Your task to perform on an android device: clear all cookies in the chrome app Image 0: 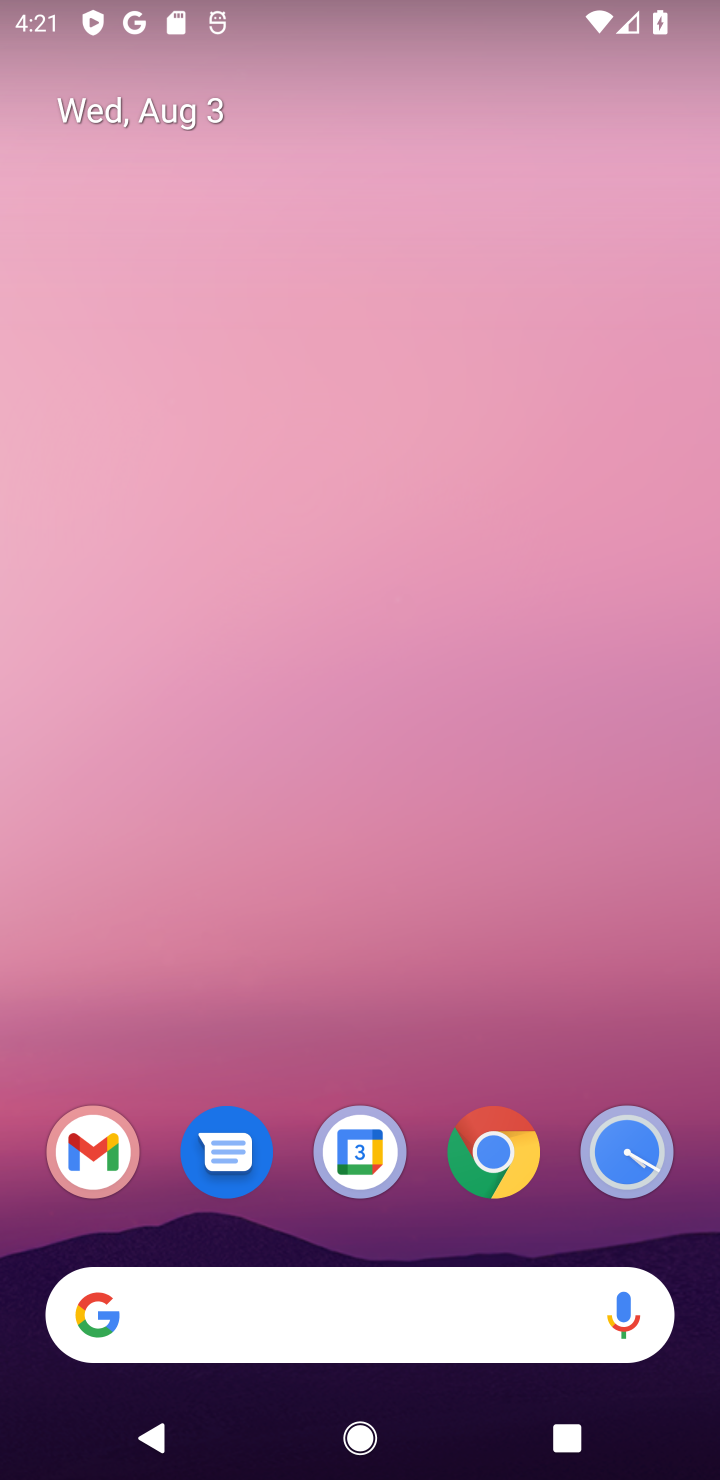
Step 0: click (468, 1161)
Your task to perform on an android device: clear all cookies in the chrome app Image 1: 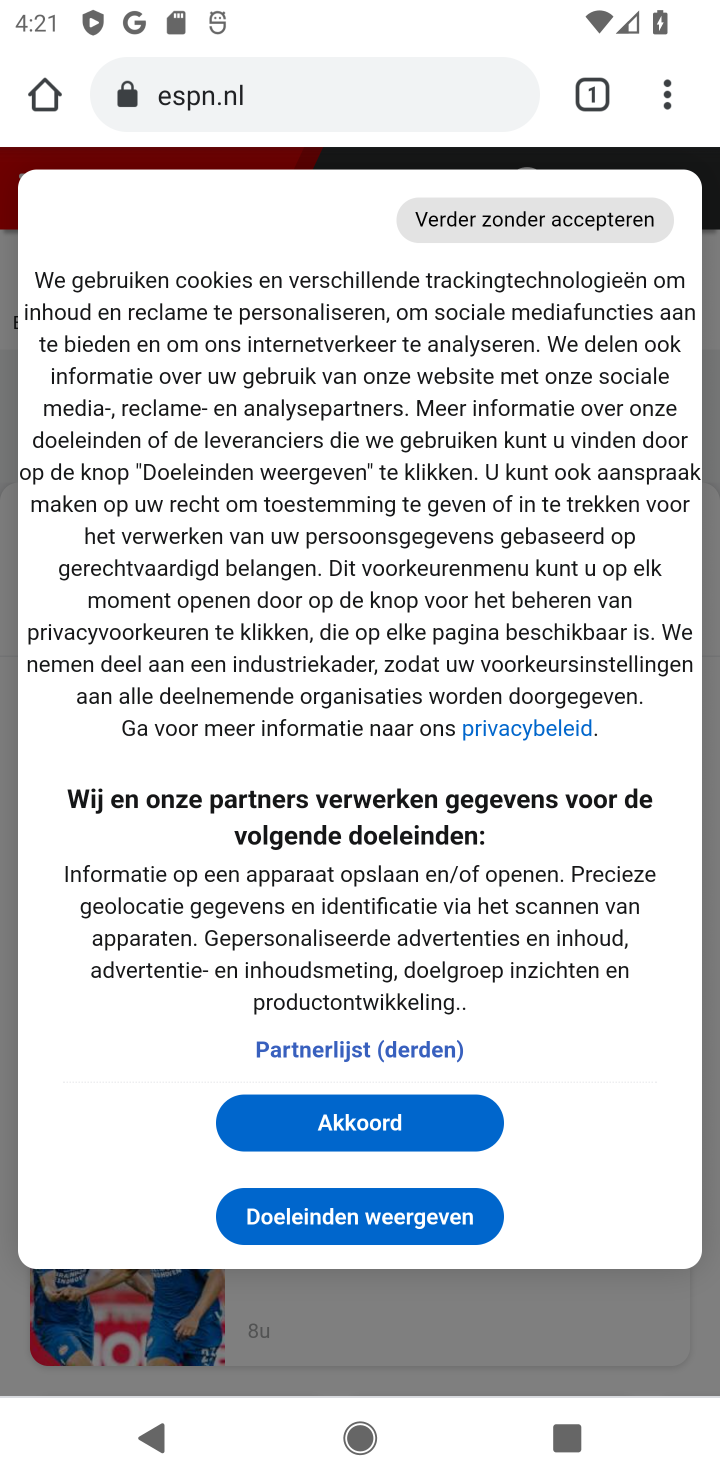
Step 1: drag from (662, 86) to (359, 387)
Your task to perform on an android device: clear all cookies in the chrome app Image 2: 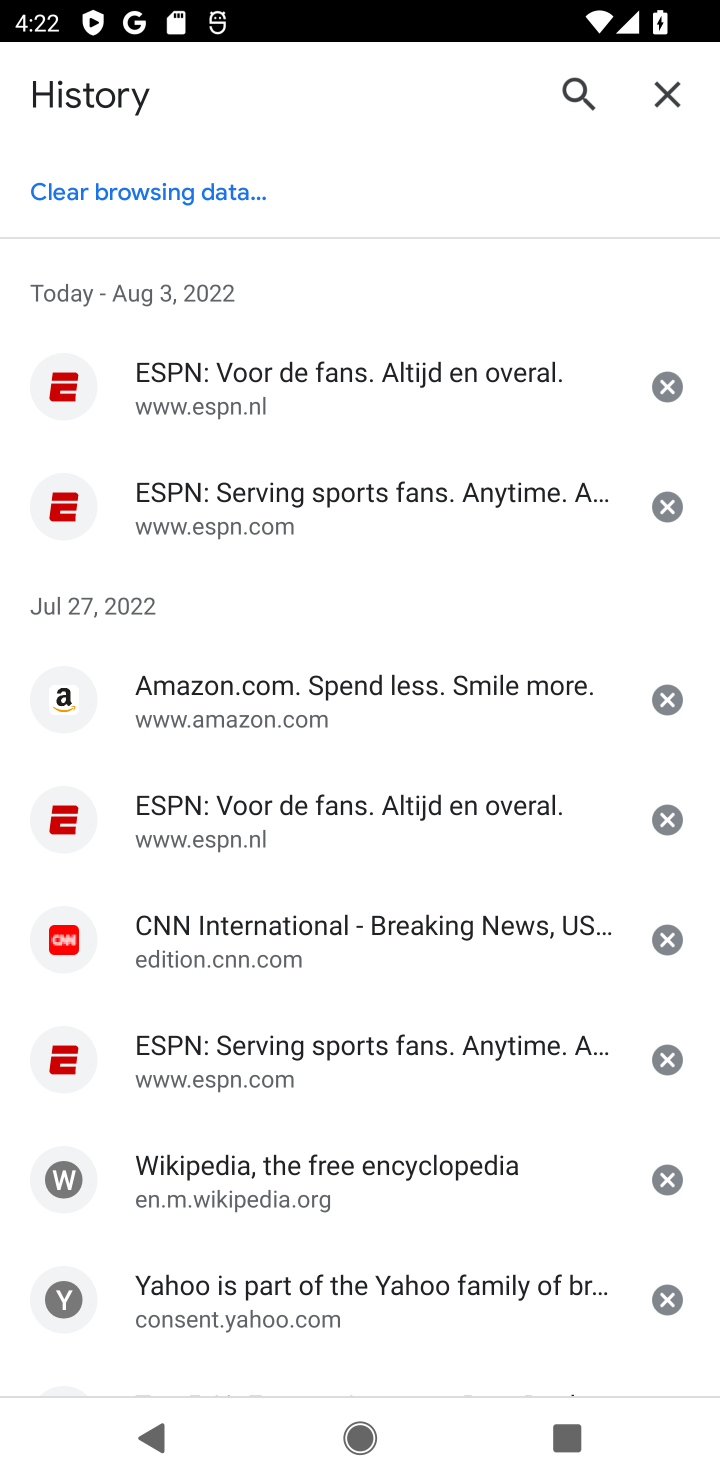
Step 2: click (206, 174)
Your task to perform on an android device: clear all cookies in the chrome app Image 3: 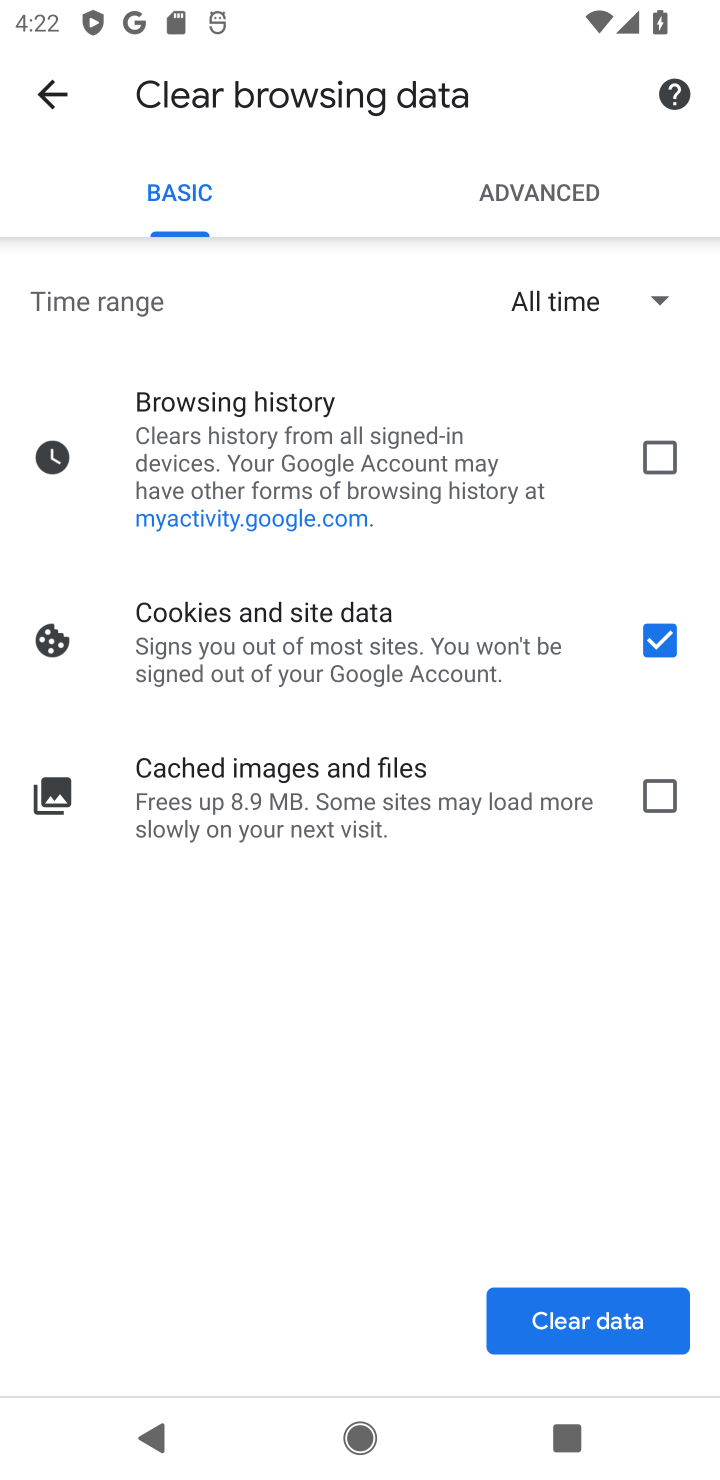
Step 3: click (528, 1312)
Your task to perform on an android device: clear all cookies in the chrome app Image 4: 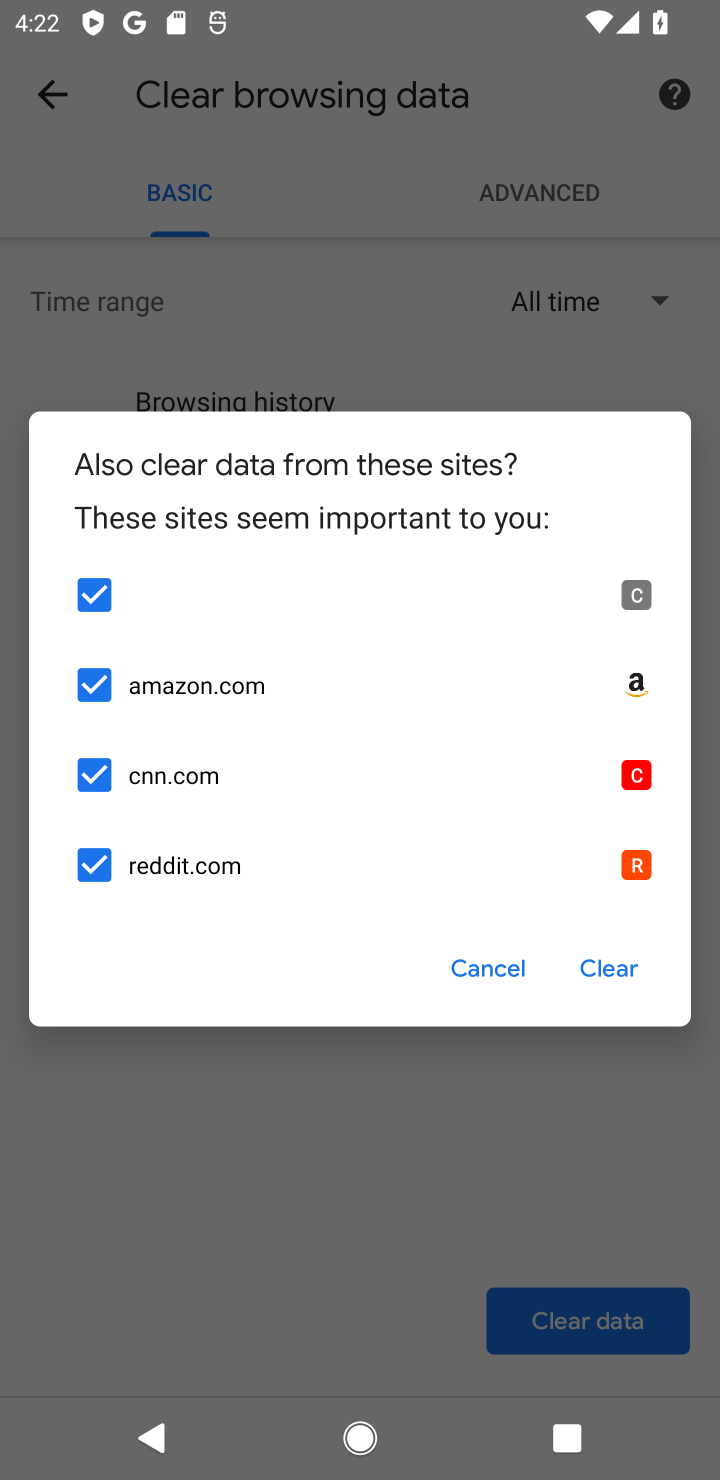
Step 4: click (608, 980)
Your task to perform on an android device: clear all cookies in the chrome app Image 5: 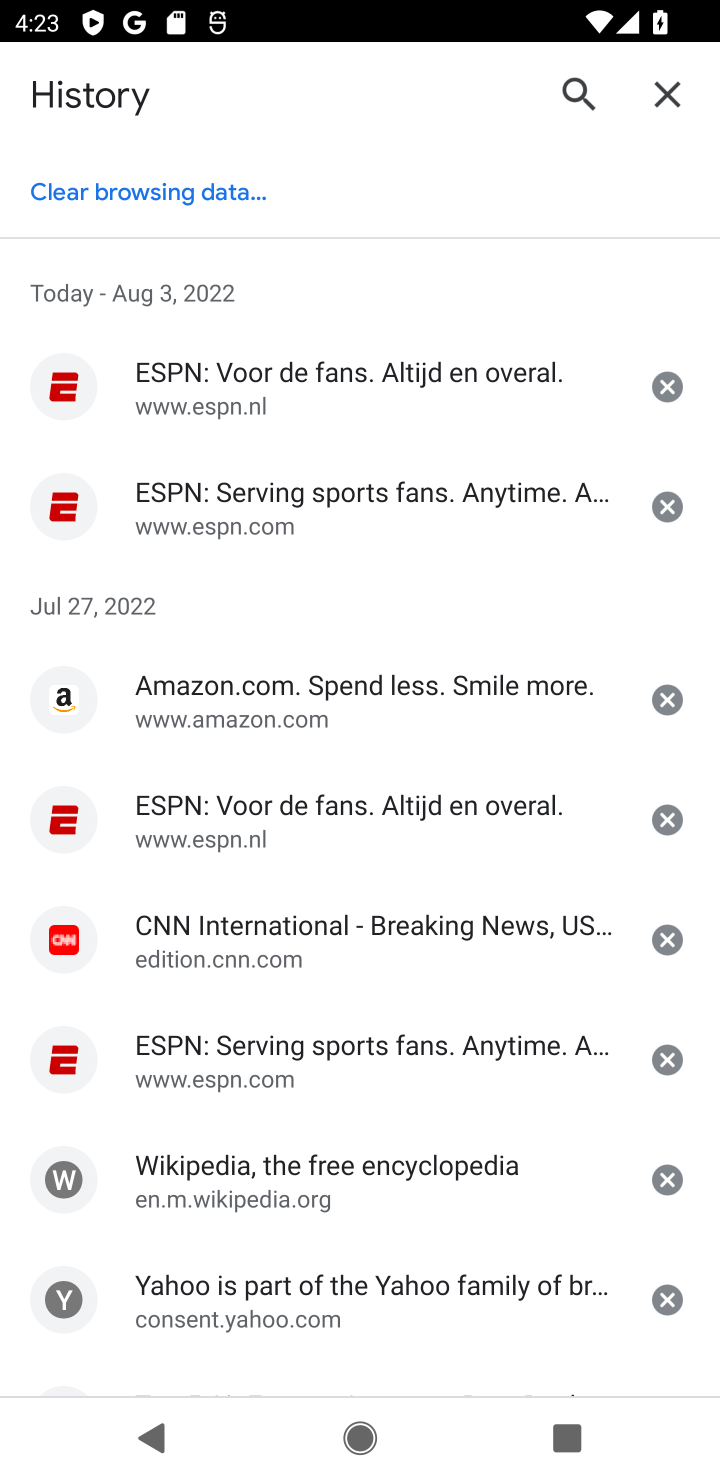
Step 5: task complete